Your task to perform on an android device: turn off data saver in the chrome app Image 0: 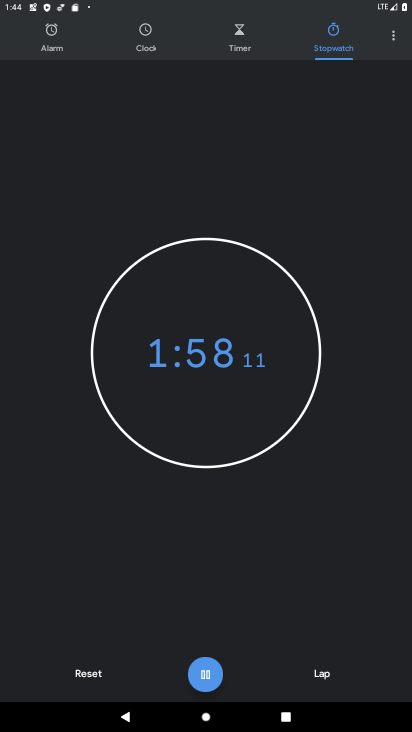
Step 0: press home button
Your task to perform on an android device: turn off data saver in the chrome app Image 1: 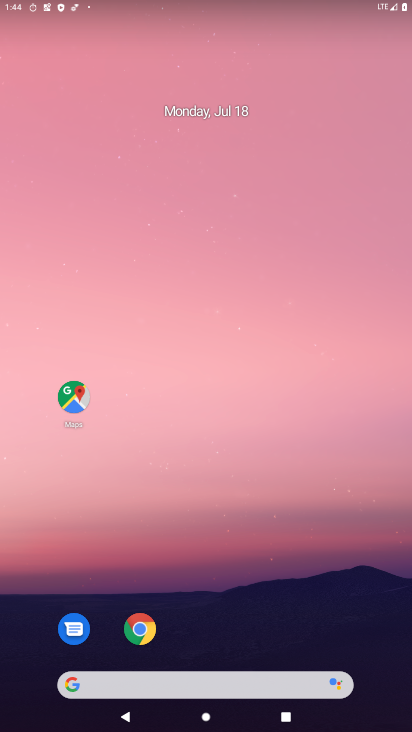
Step 1: click (140, 624)
Your task to perform on an android device: turn off data saver in the chrome app Image 2: 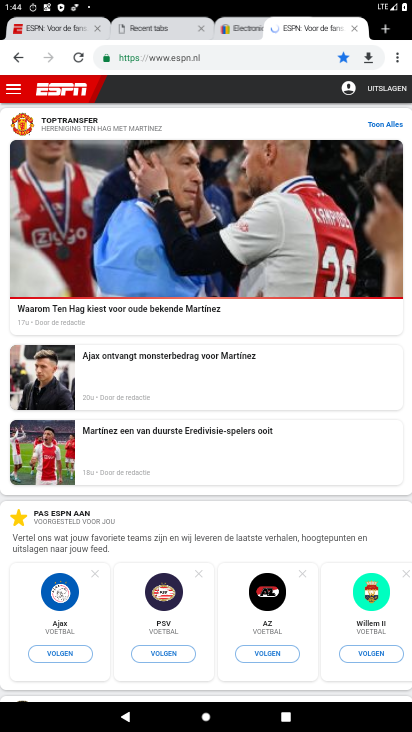
Step 2: click (391, 54)
Your task to perform on an android device: turn off data saver in the chrome app Image 3: 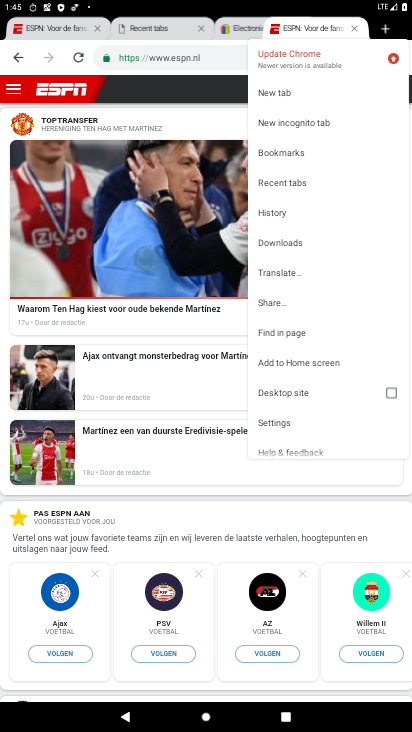
Step 3: click (304, 418)
Your task to perform on an android device: turn off data saver in the chrome app Image 4: 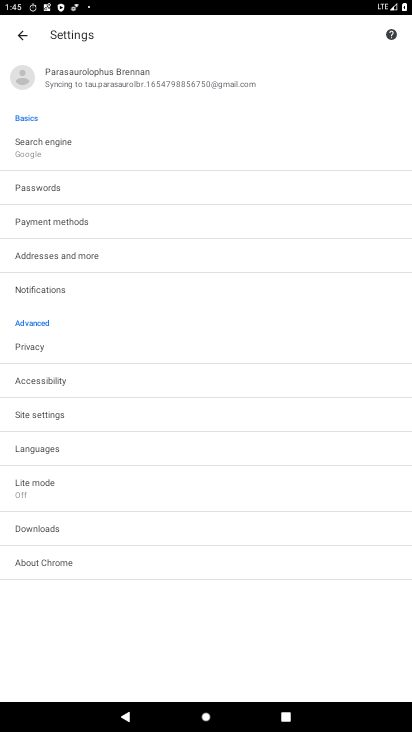
Step 4: click (66, 482)
Your task to perform on an android device: turn off data saver in the chrome app Image 5: 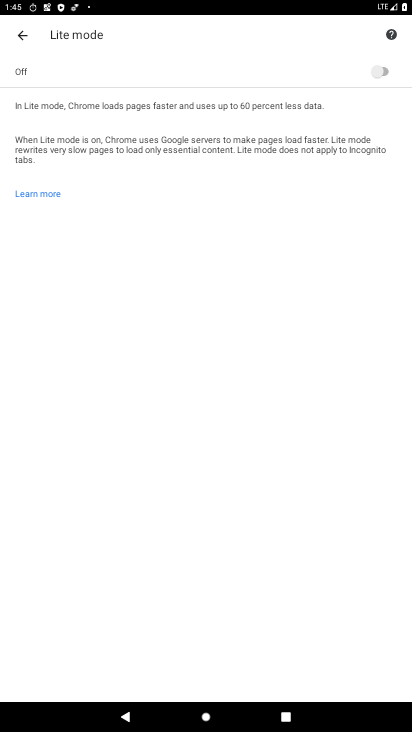
Step 5: task complete